Your task to perform on an android device: toggle location history Image 0: 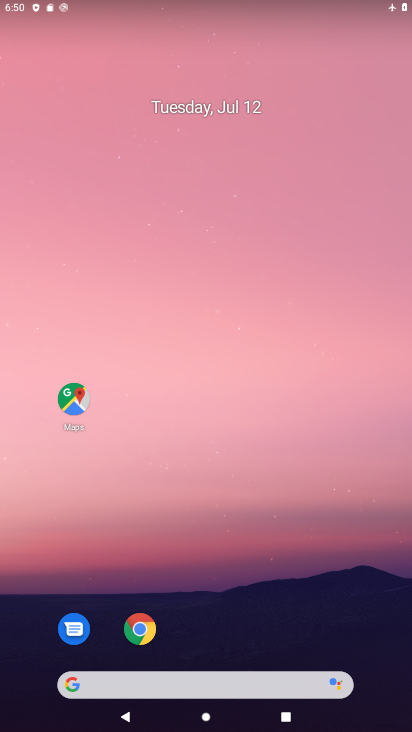
Step 0: click (77, 403)
Your task to perform on an android device: toggle location history Image 1: 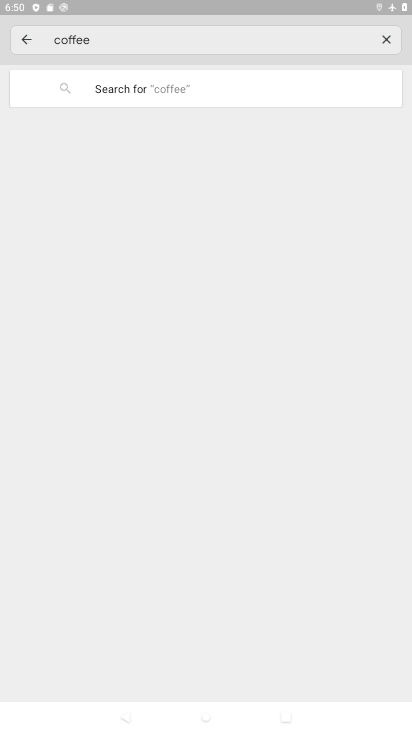
Step 1: click (25, 35)
Your task to perform on an android device: toggle location history Image 2: 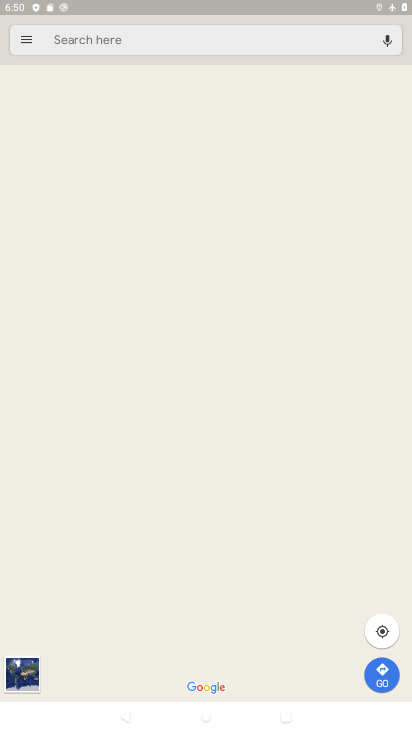
Step 2: click (22, 35)
Your task to perform on an android device: toggle location history Image 3: 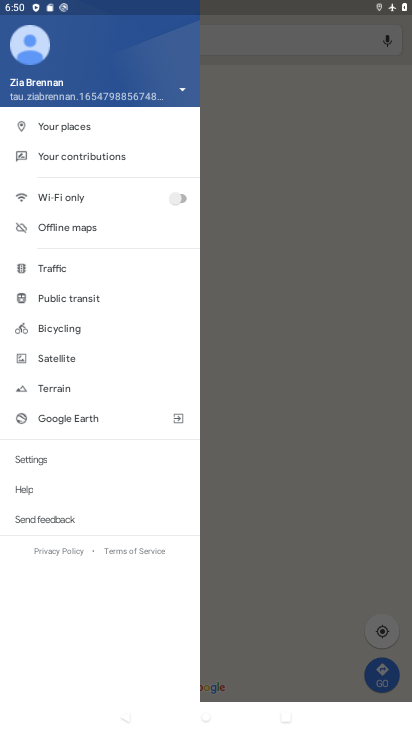
Step 3: click (33, 460)
Your task to perform on an android device: toggle location history Image 4: 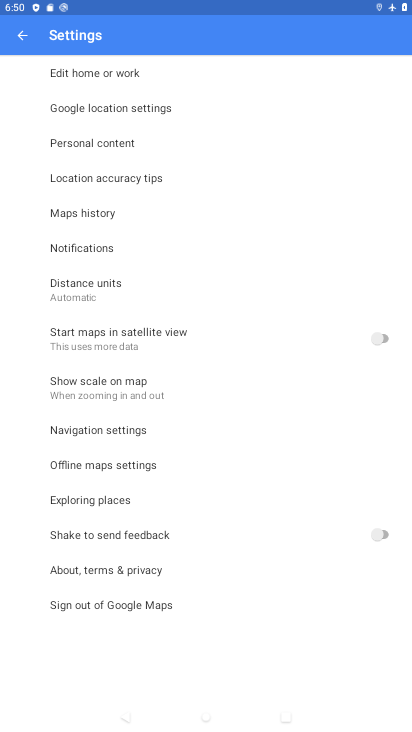
Step 4: click (21, 40)
Your task to perform on an android device: toggle location history Image 5: 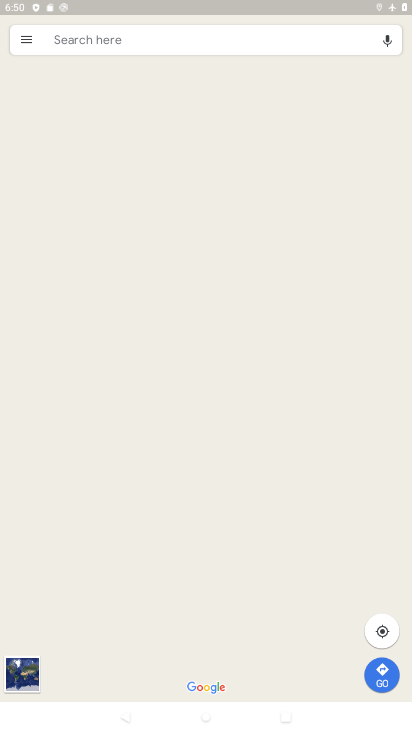
Step 5: click (21, 35)
Your task to perform on an android device: toggle location history Image 6: 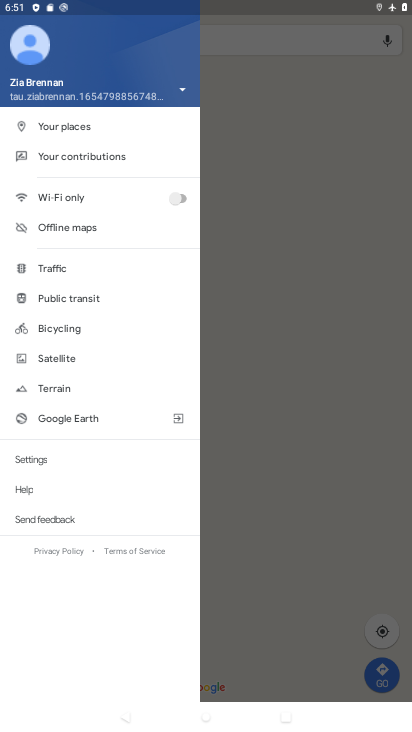
Step 6: click (265, 341)
Your task to perform on an android device: toggle location history Image 7: 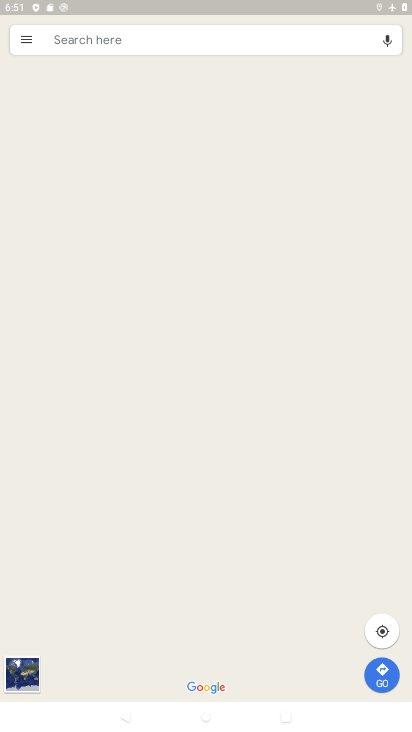
Step 7: task complete